Your task to perform on an android device: turn on javascript in the chrome app Image 0: 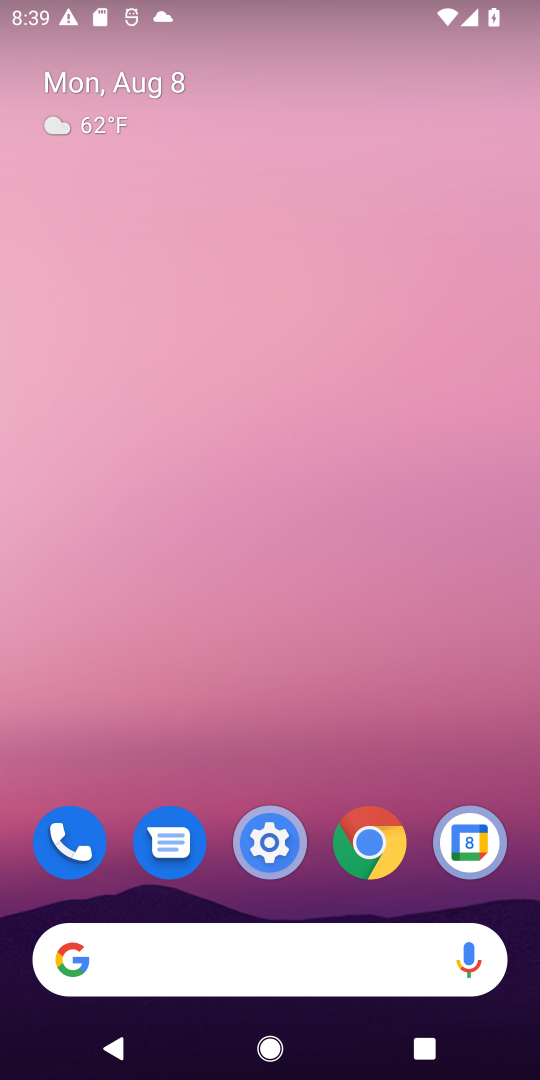
Step 0: click (375, 836)
Your task to perform on an android device: turn on javascript in the chrome app Image 1: 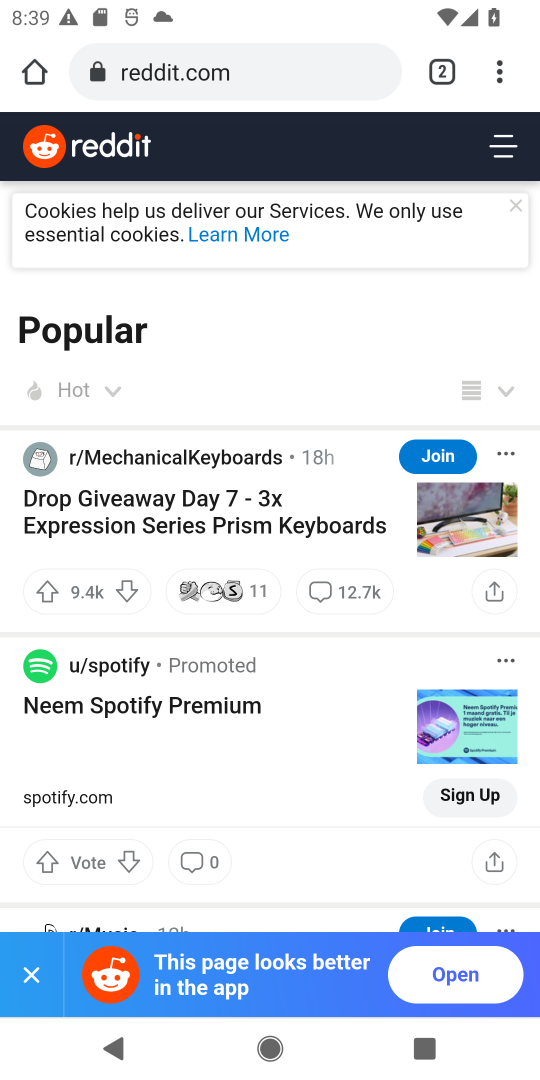
Step 1: click (498, 69)
Your task to perform on an android device: turn on javascript in the chrome app Image 2: 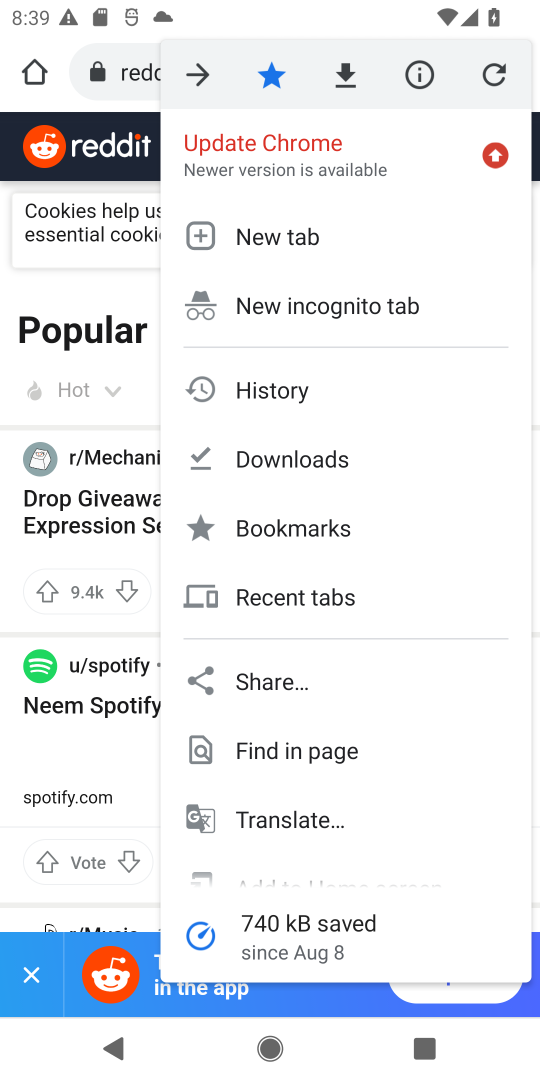
Step 2: drag from (371, 754) to (380, 147)
Your task to perform on an android device: turn on javascript in the chrome app Image 3: 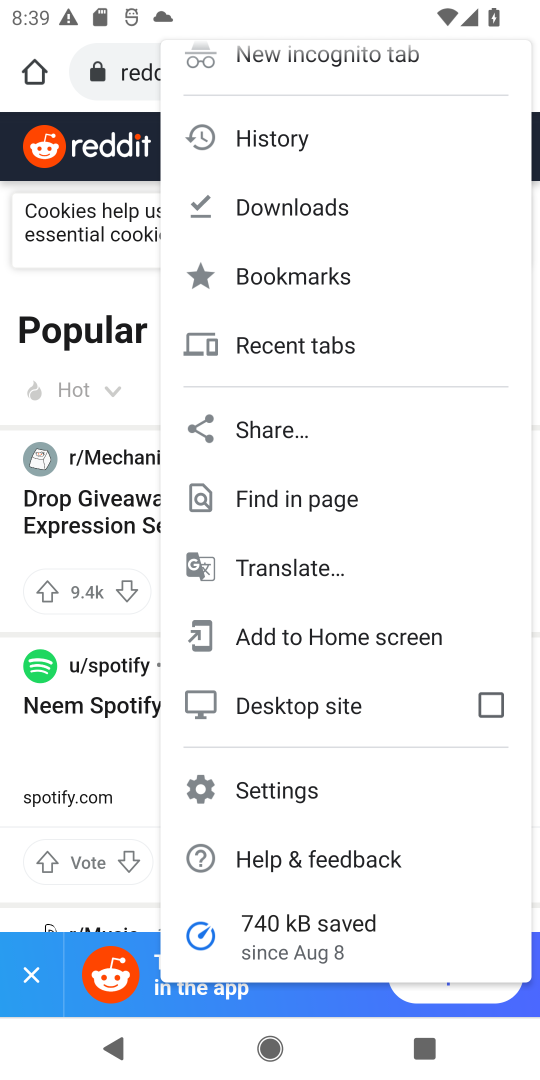
Step 3: click (306, 783)
Your task to perform on an android device: turn on javascript in the chrome app Image 4: 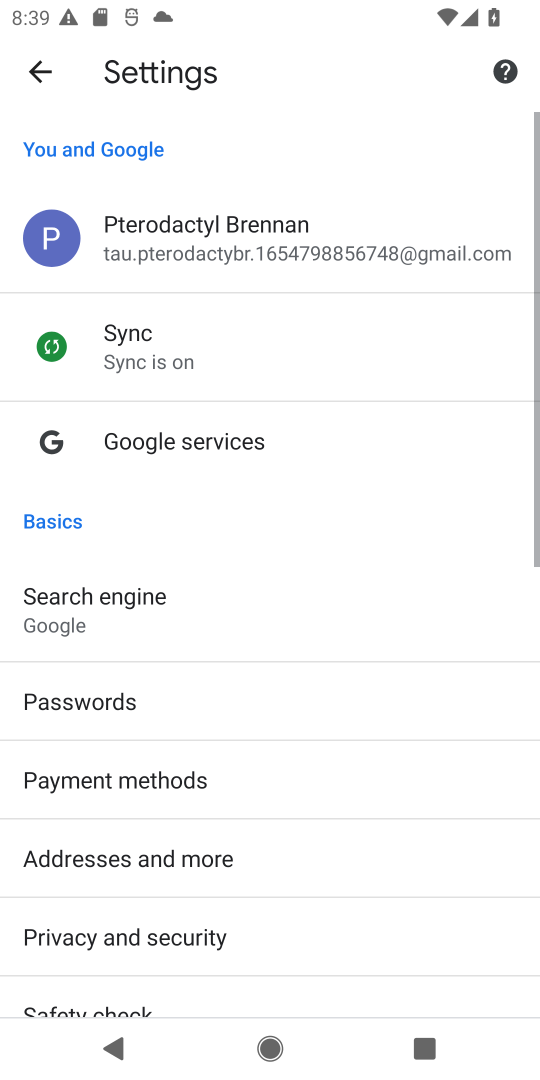
Step 4: drag from (304, 765) to (388, 1)
Your task to perform on an android device: turn on javascript in the chrome app Image 5: 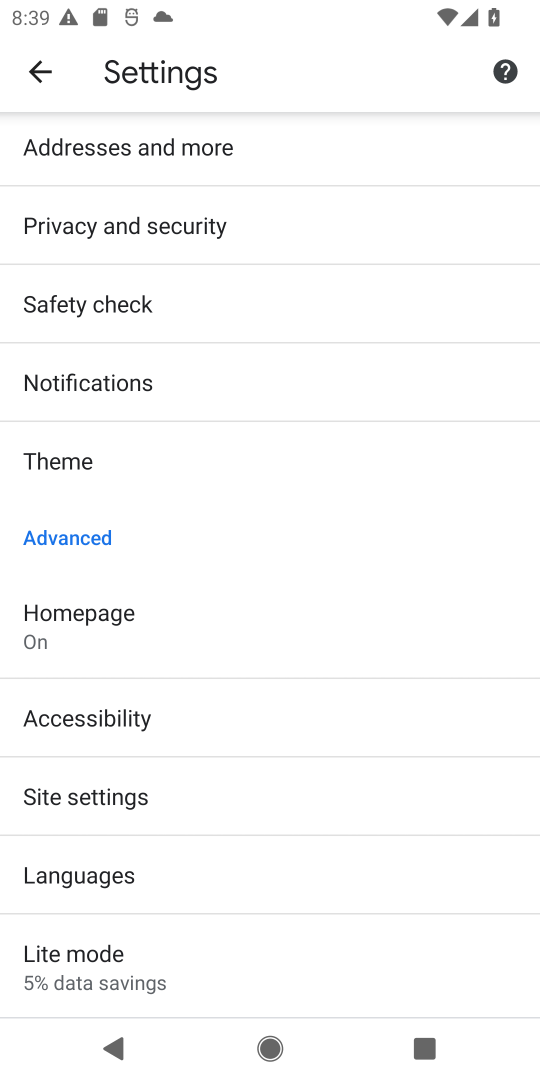
Step 5: click (143, 791)
Your task to perform on an android device: turn on javascript in the chrome app Image 6: 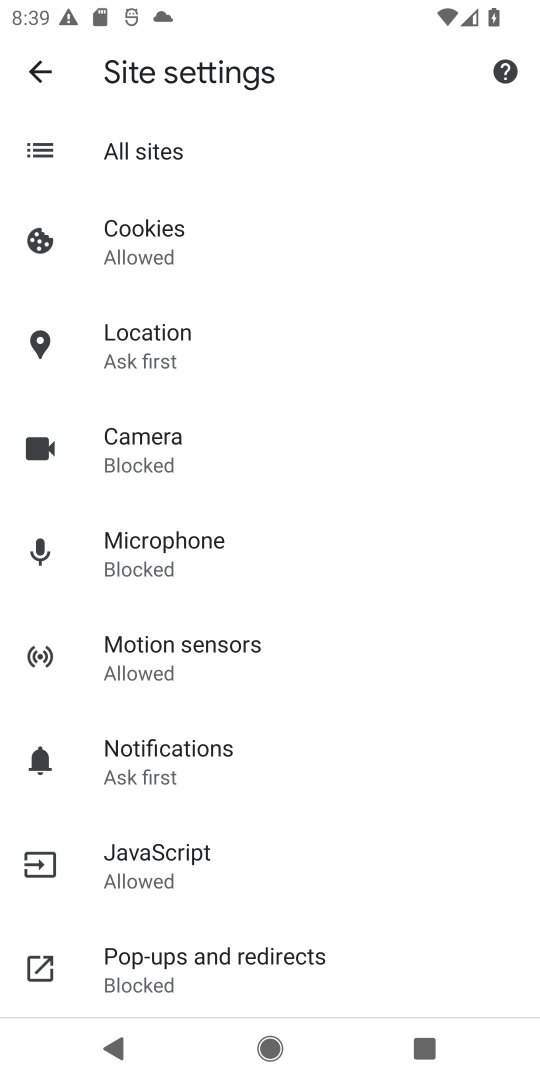
Step 6: click (218, 860)
Your task to perform on an android device: turn on javascript in the chrome app Image 7: 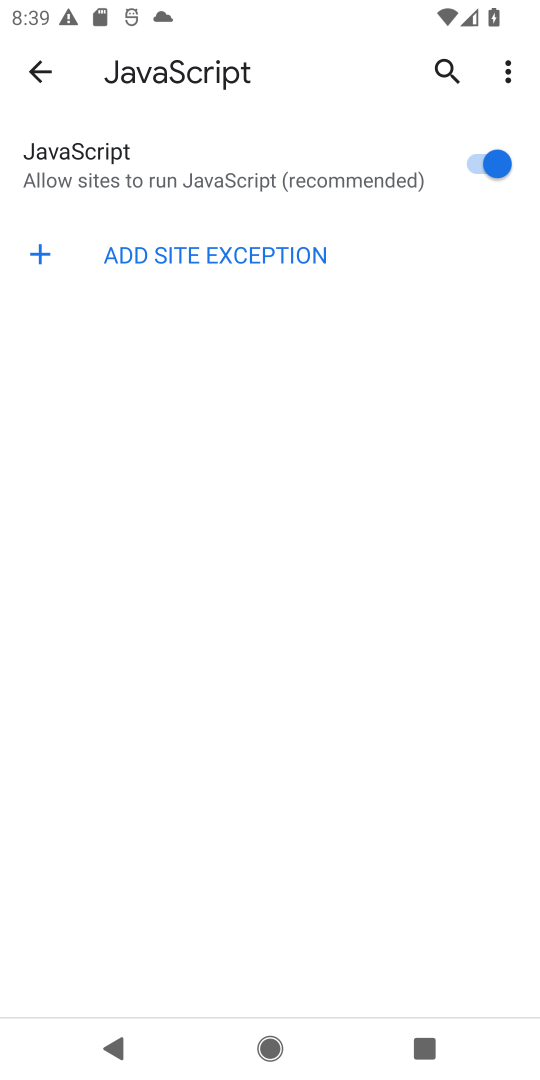
Step 7: task complete